Your task to perform on an android device: Open Google Chrome and click the shortcut for Amazon.com Image 0: 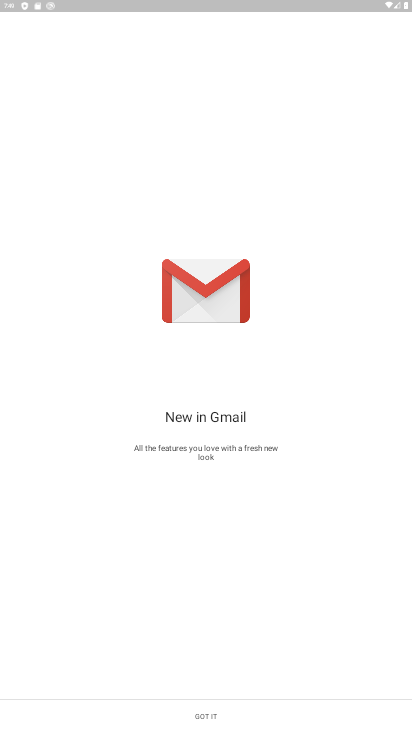
Step 0: drag from (178, 641) to (350, 580)
Your task to perform on an android device: Open Google Chrome and click the shortcut for Amazon.com Image 1: 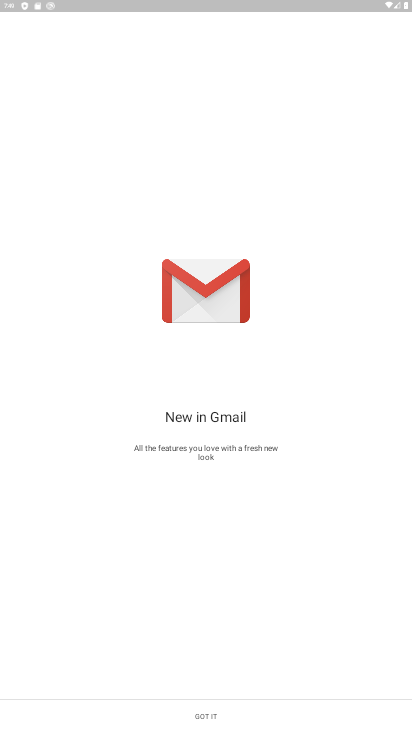
Step 1: press home button
Your task to perform on an android device: Open Google Chrome and click the shortcut for Amazon.com Image 2: 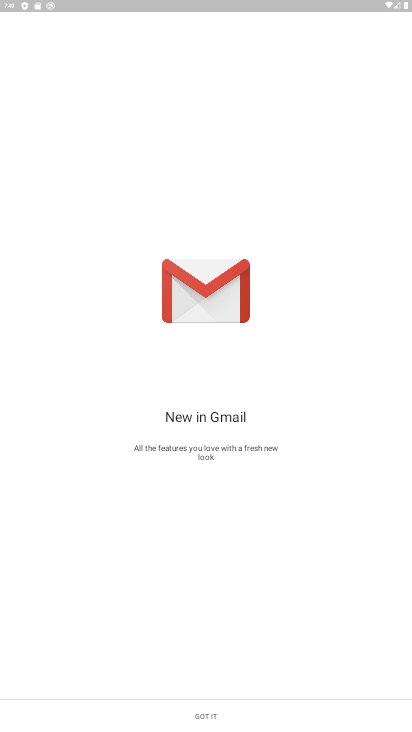
Step 2: drag from (350, 580) to (390, 596)
Your task to perform on an android device: Open Google Chrome and click the shortcut for Amazon.com Image 3: 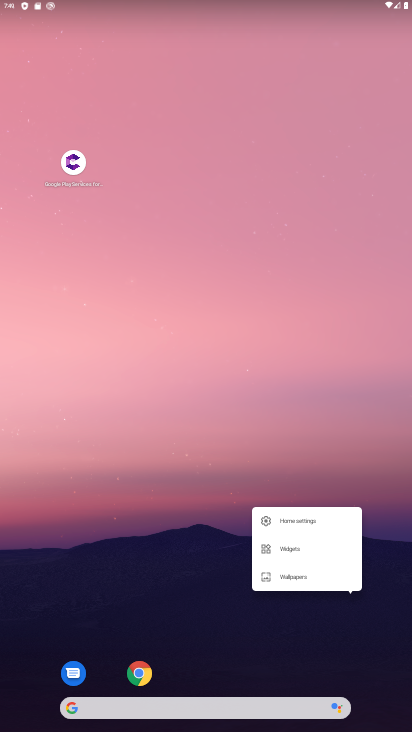
Step 3: click (136, 680)
Your task to perform on an android device: Open Google Chrome and click the shortcut for Amazon.com Image 4: 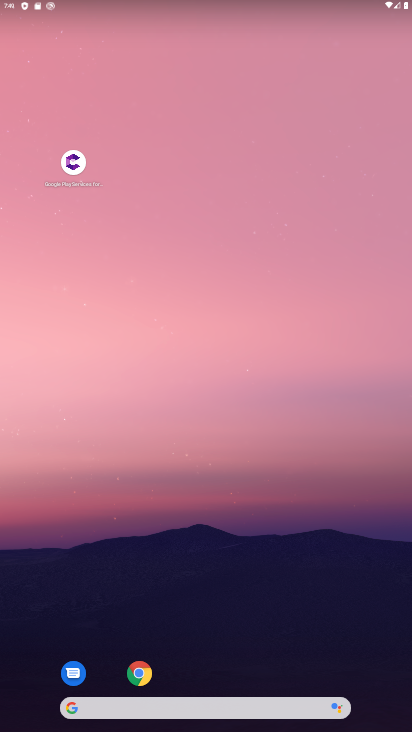
Step 4: click (136, 680)
Your task to perform on an android device: Open Google Chrome and click the shortcut for Amazon.com Image 5: 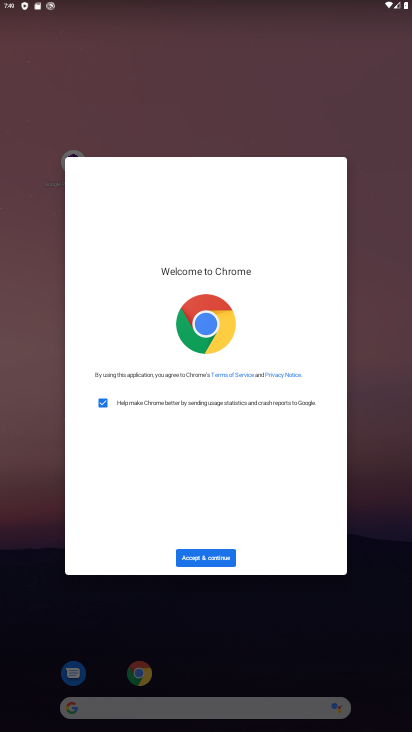
Step 5: click (200, 555)
Your task to perform on an android device: Open Google Chrome and click the shortcut for Amazon.com Image 6: 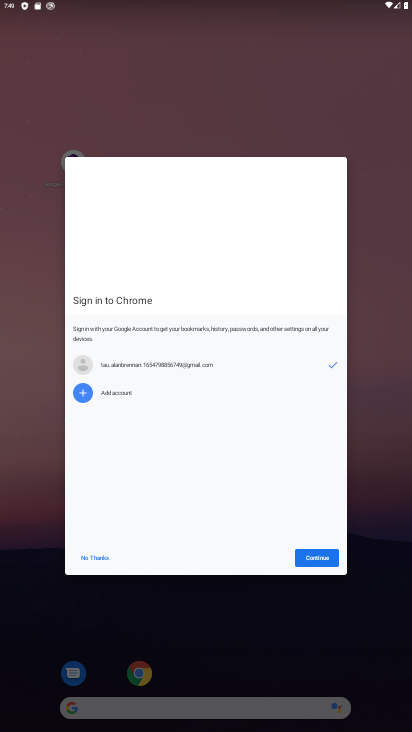
Step 6: click (312, 555)
Your task to perform on an android device: Open Google Chrome and click the shortcut for Amazon.com Image 7: 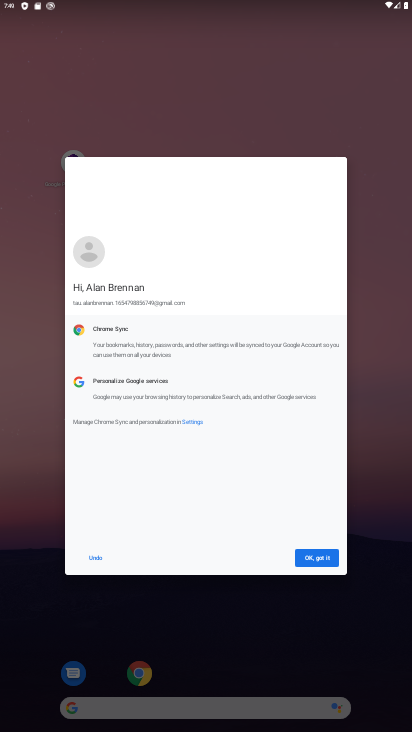
Step 7: click (312, 555)
Your task to perform on an android device: Open Google Chrome and click the shortcut for Amazon.com Image 8: 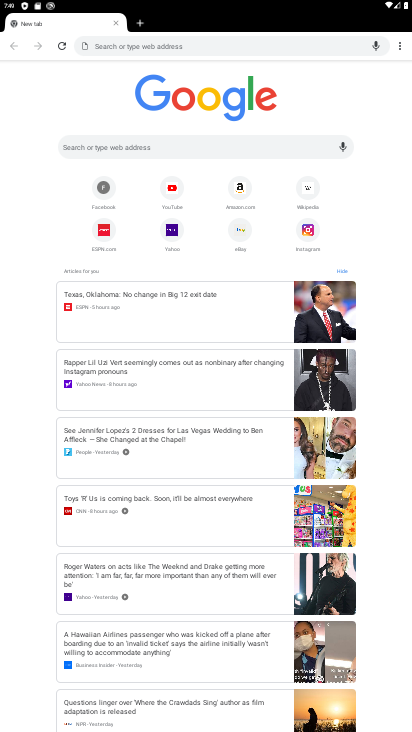
Step 8: click (242, 189)
Your task to perform on an android device: Open Google Chrome and click the shortcut for Amazon.com Image 9: 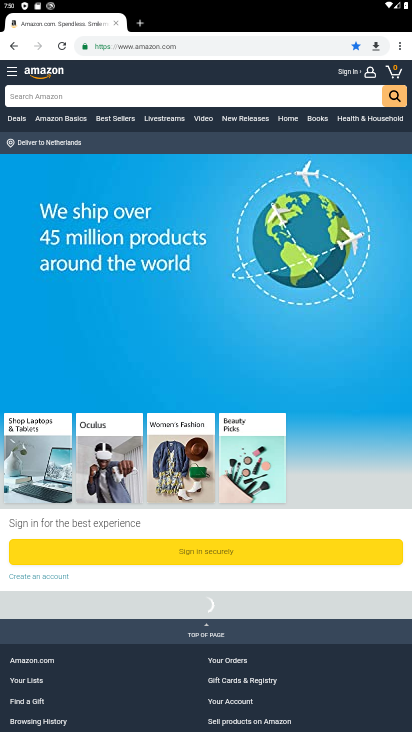
Step 9: task complete